Your task to perform on an android device: Clear the cart on amazon.com. Search for beats solo 3 on amazon.com, select the first entry, add it to the cart, then select checkout. Image 0: 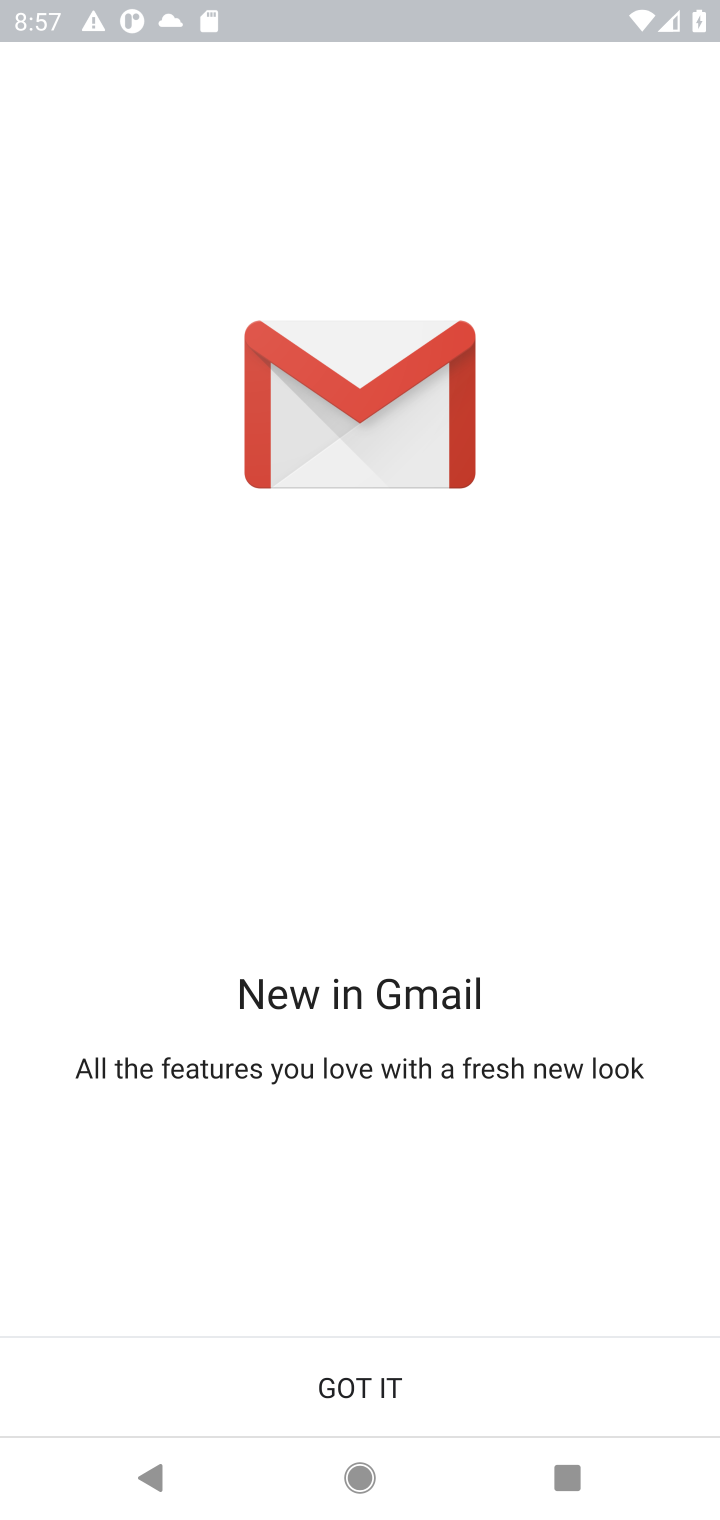
Step 0: press home button
Your task to perform on an android device: Clear the cart on amazon.com. Search for beats solo 3 on amazon.com, select the first entry, add it to the cart, then select checkout. Image 1: 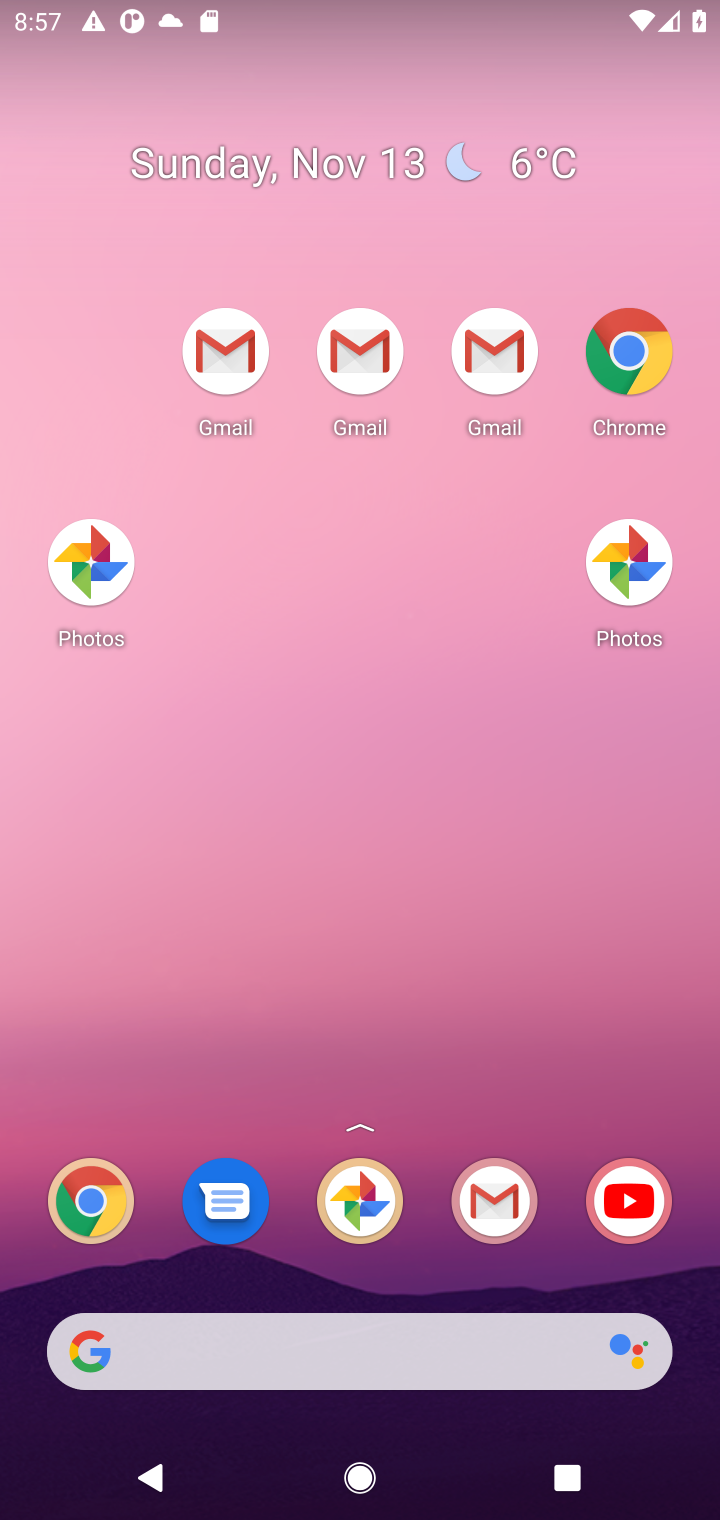
Step 1: drag from (444, 942) to (472, 325)
Your task to perform on an android device: Clear the cart on amazon.com. Search for beats solo 3 on amazon.com, select the first entry, add it to the cart, then select checkout. Image 2: 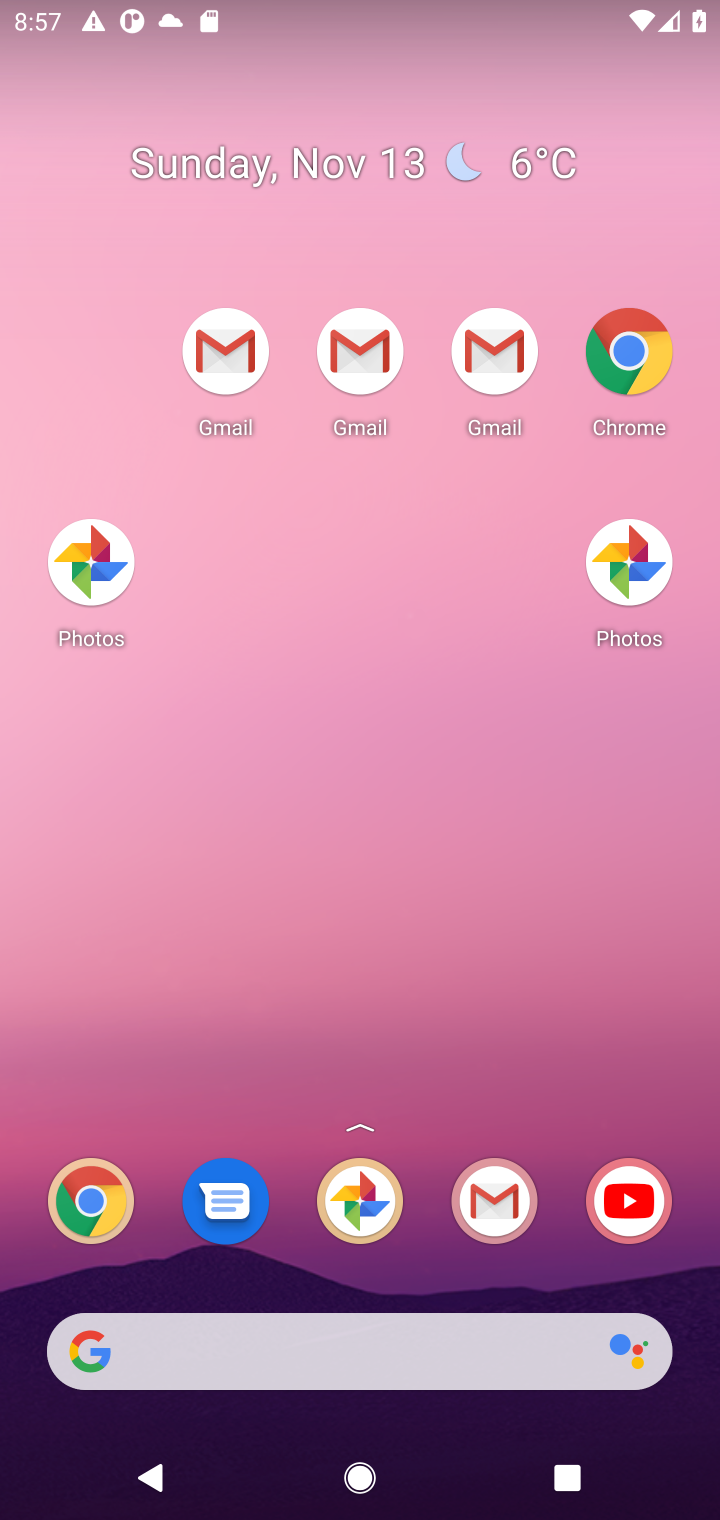
Step 2: drag from (432, 800) to (423, 203)
Your task to perform on an android device: Clear the cart on amazon.com. Search for beats solo 3 on amazon.com, select the first entry, add it to the cart, then select checkout. Image 3: 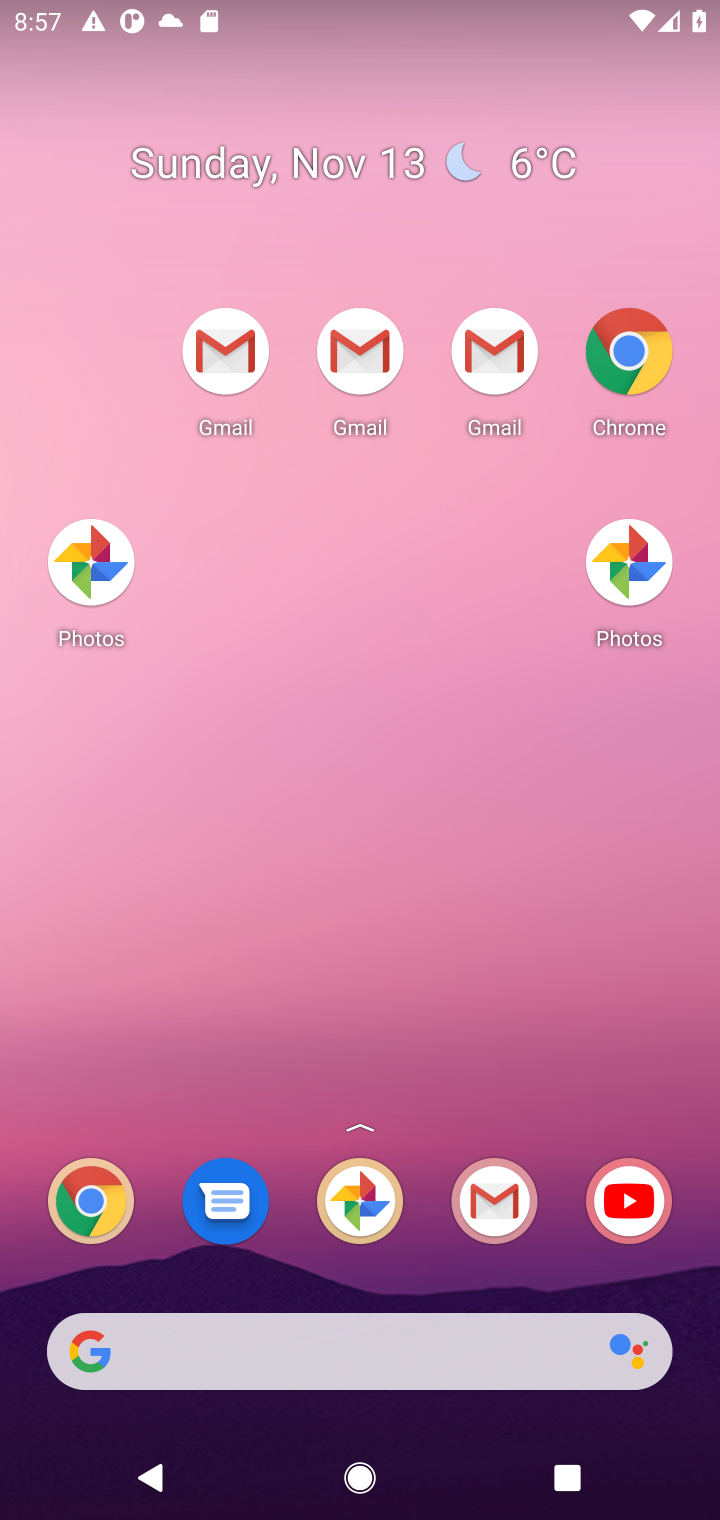
Step 3: drag from (439, 1297) to (372, 36)
Your task to perform on an android device: Clear the cart on amazon.com. Search for beats solo 3 on amazon.com, select the first entry, add it to the cart, then select checkout. Image 4: 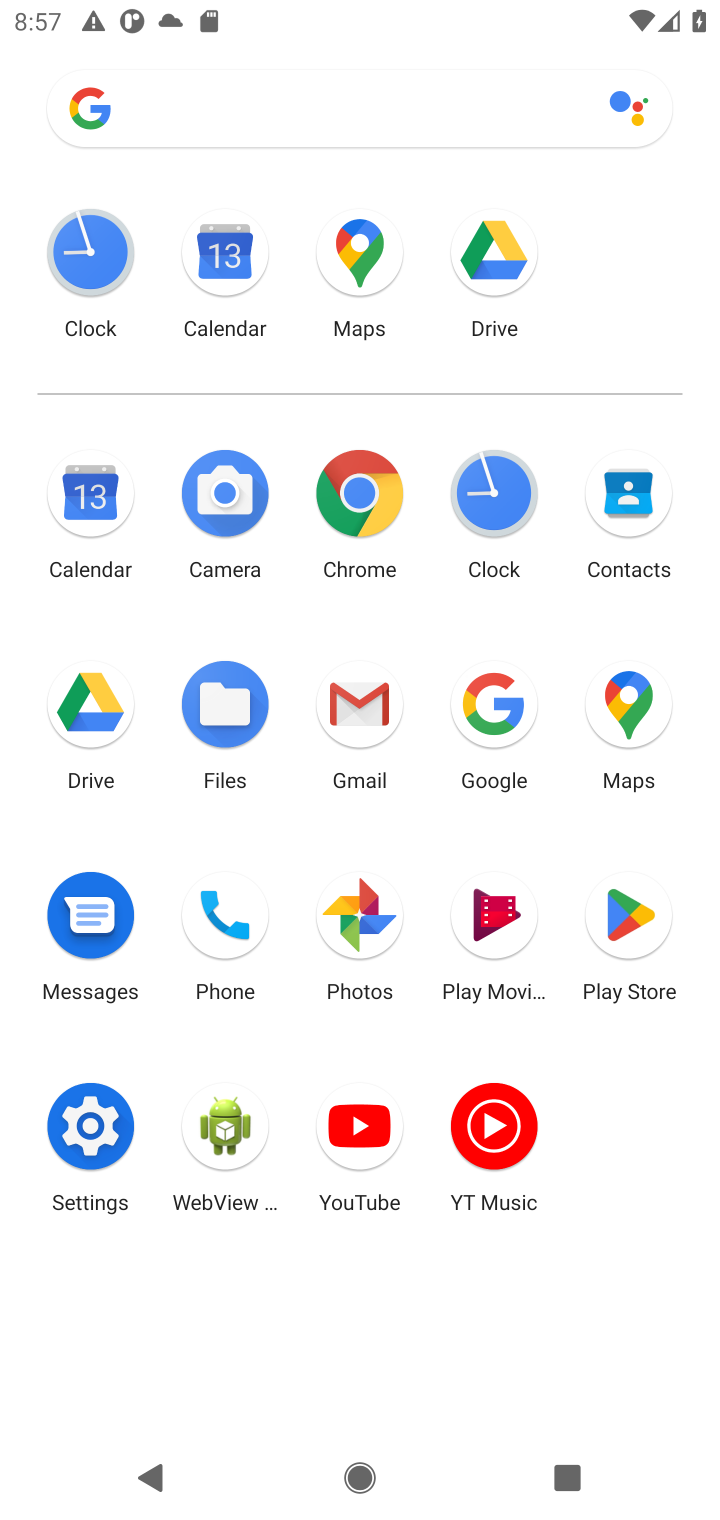
Step 4: click (369, 494)
Your task to perform on an android device: Clear the cart on amazon.com. Search for beats solo 3 on amazon.com, select the first entry, add it to the cart, then select checkout. Image 5: 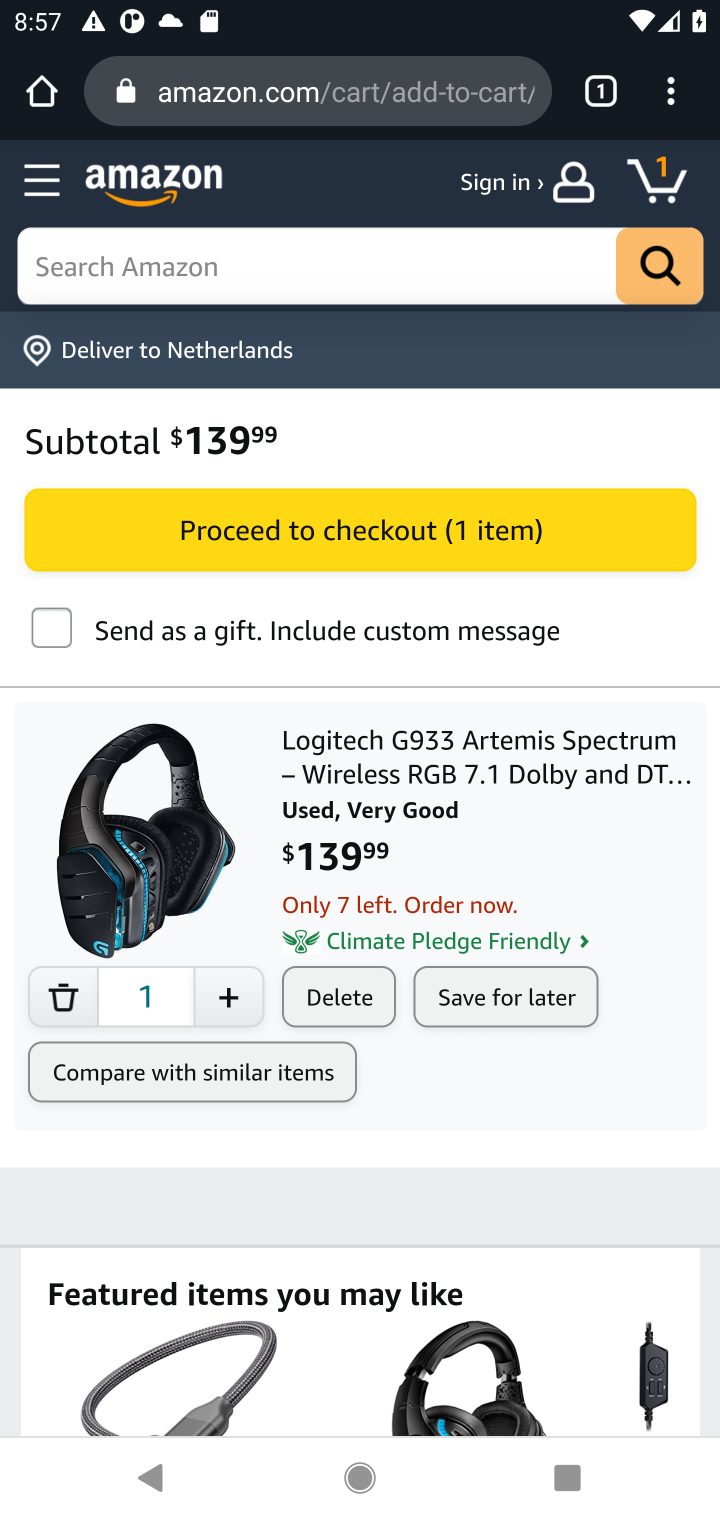
Step 5: click (391, 86)
Your task to perform on an android device: Clear the cart on amazon.com. Search for beats solo 3 on amazon.com, select the first entry, add it to the cart, then select checkout. Image 6: 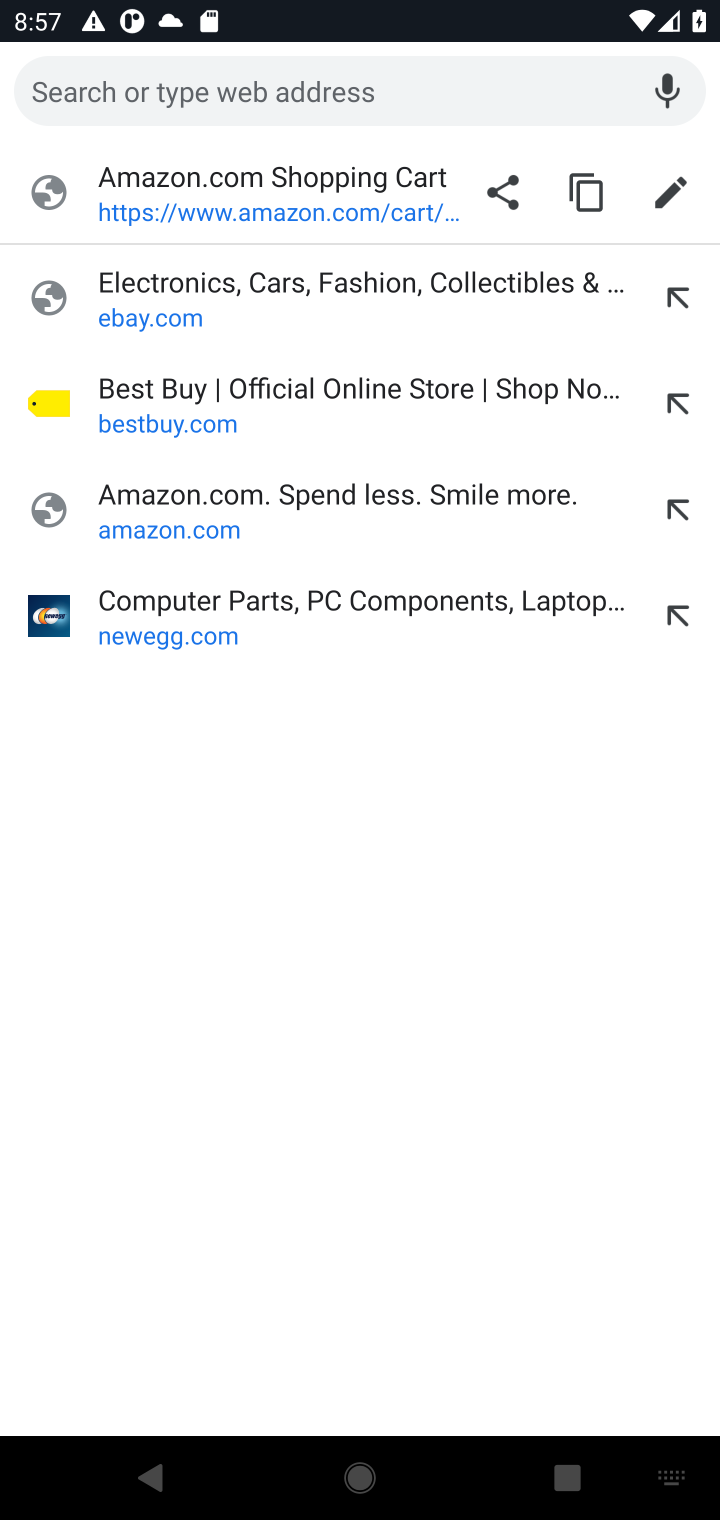
Step 6: type "amazon.com"
Your task to perform on an android device: Clear the cart on amazon.com. Search for beats solo 3 on amazon.com, select the first entry, add it to the cart, then select checkout. Image 7: 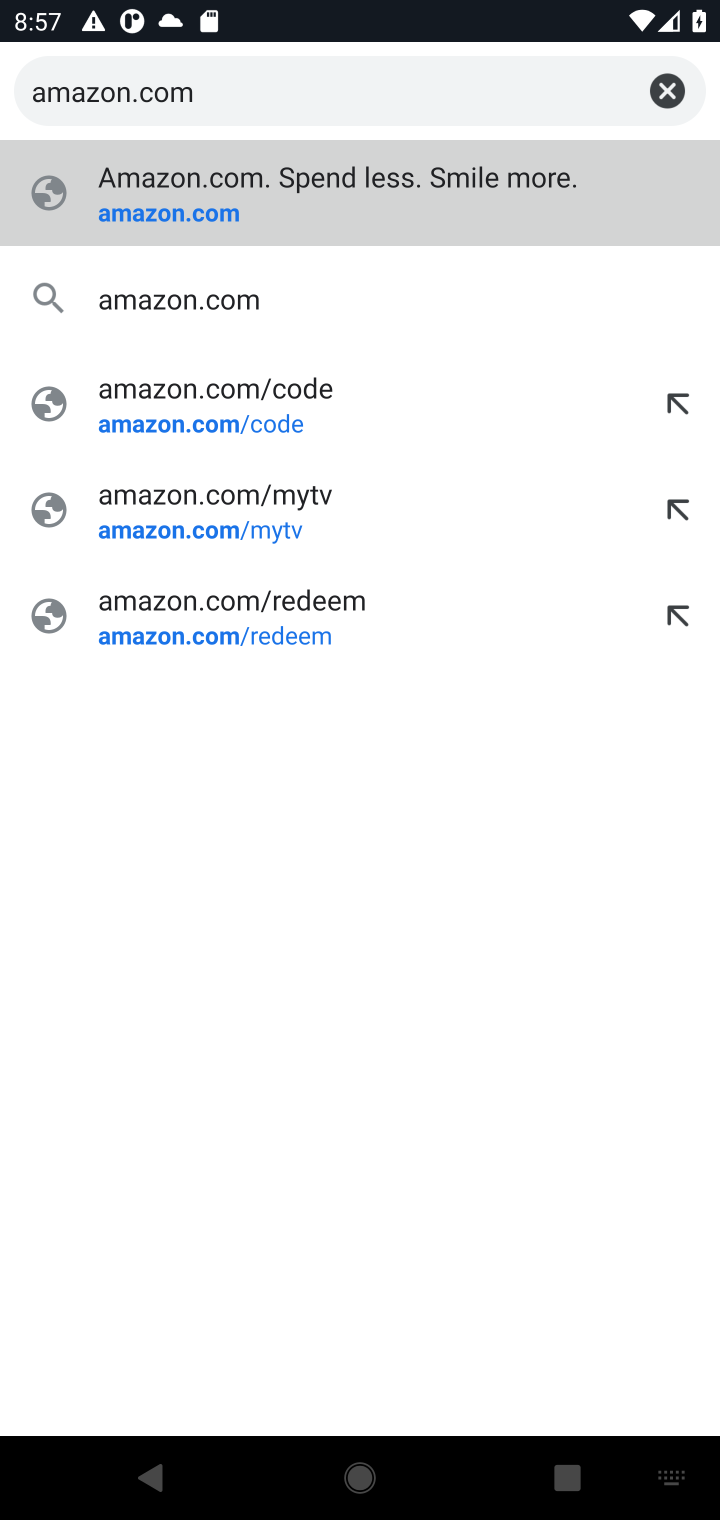
Step 7: press enter
Your task to perform on an android device: Clear the cart on amazon.com. Search for beats solo 3 on amazon.com, select the first entry, add it to the cart, then select checkout. Image 8: 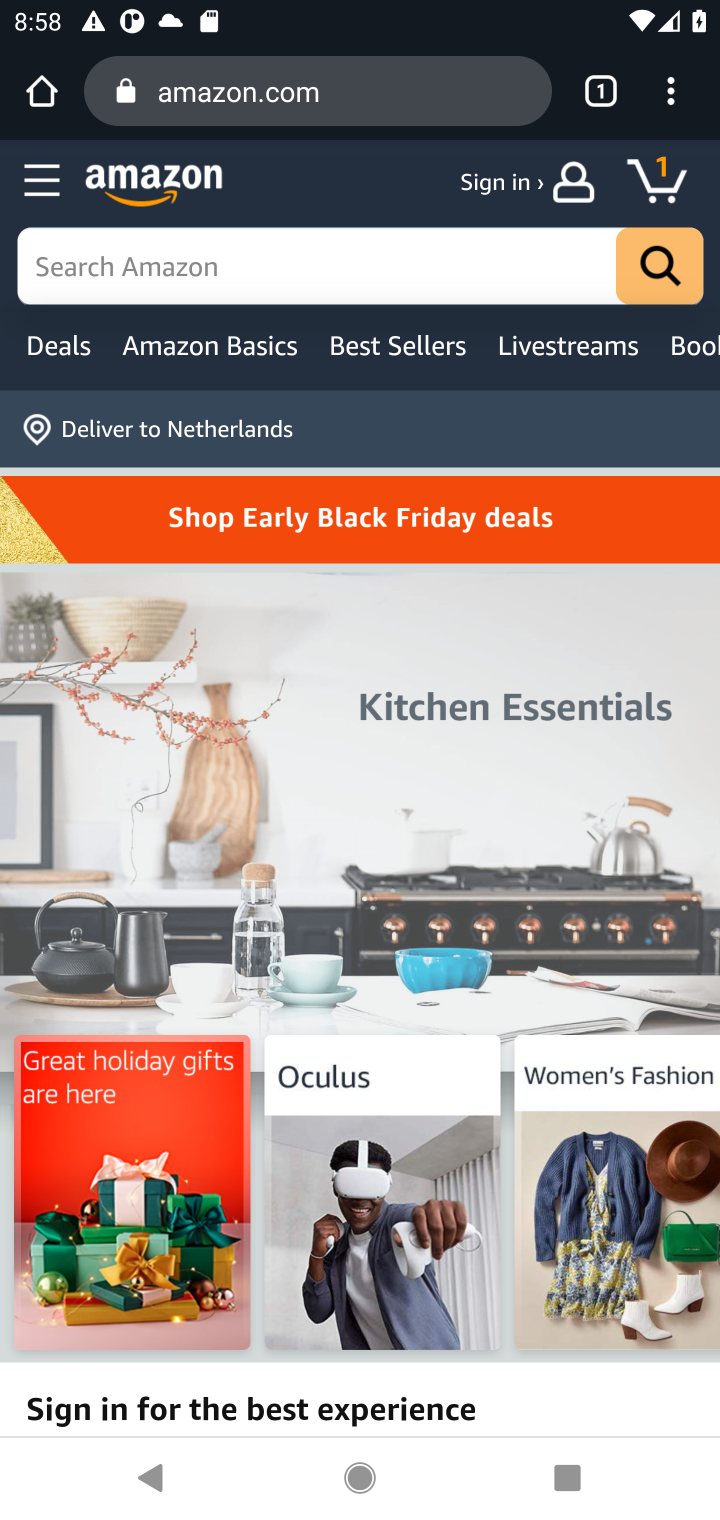
Step 8: click (665, 163)
Your task to perform on an android device: Clear the cart on amazon.com. Search for beats solo 3 on amazon.com, select the first entry, add it to the cart, then select checkout. Image 9: 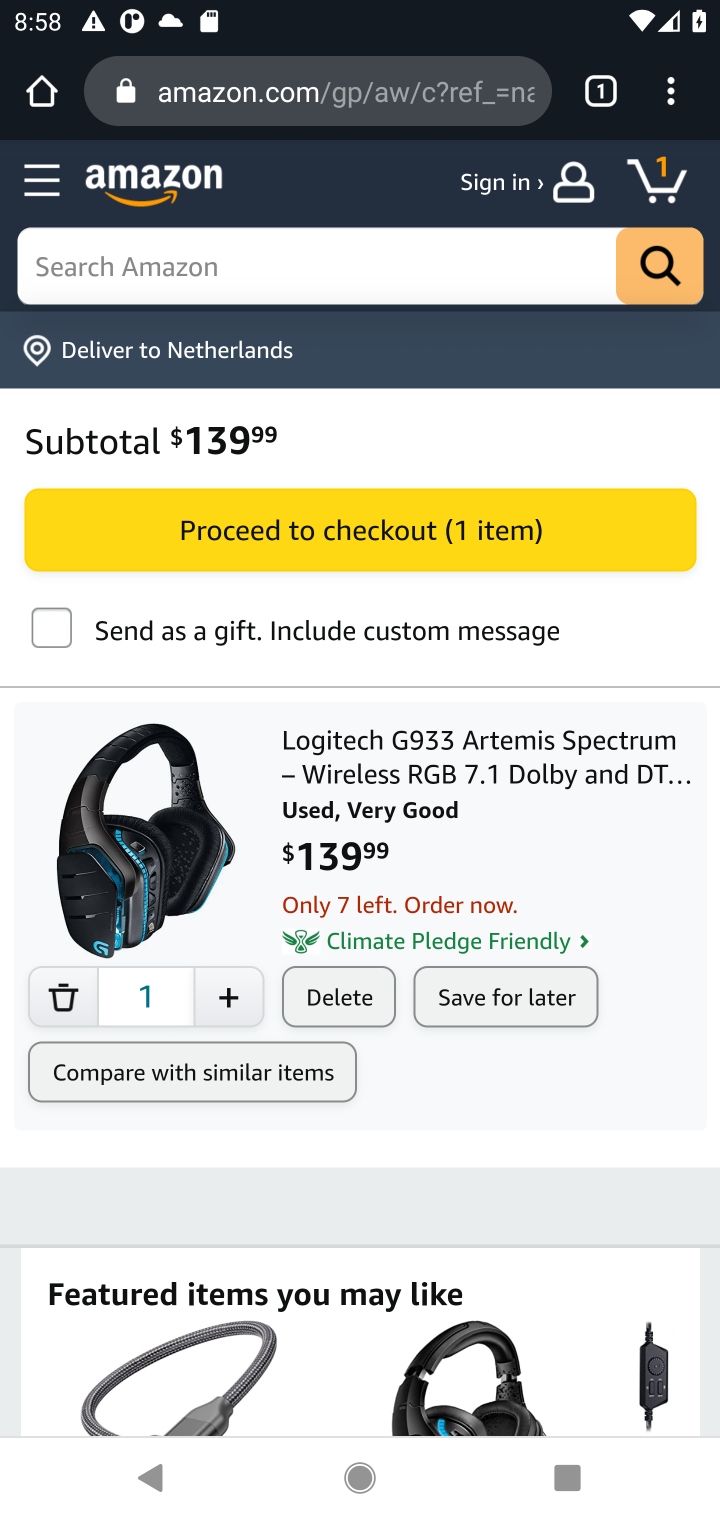
Step 9: click (345, 989)
Your task to perform on an android device: Clear the cart on amazon.com. Search for beats solo 3 on amazon.com, select the first entry, add it to the cart, then select checkout. Image 10: 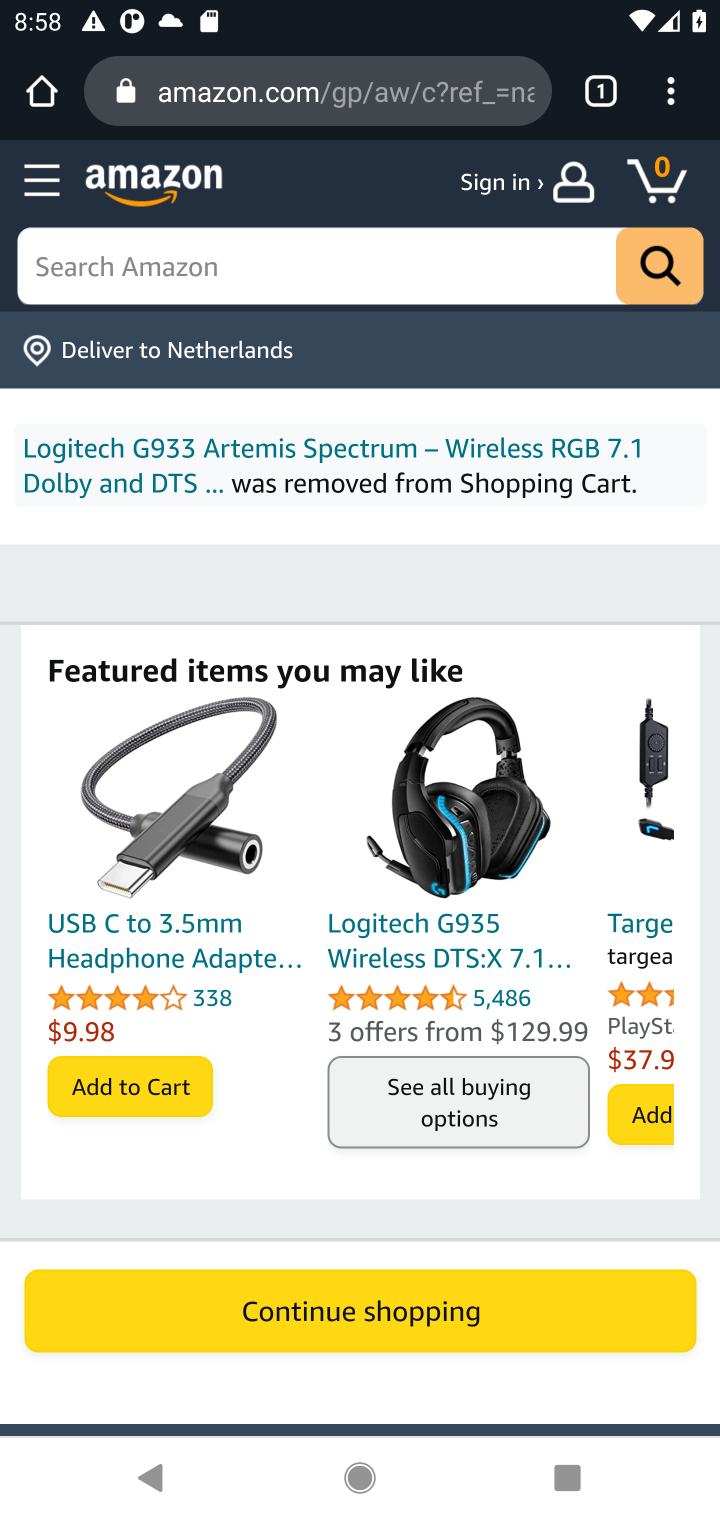
Step 10: click (469, 277)
Your task to perform on an android device: Clear the cart on amazon.com. Search for beats solo 3 on amazon.com, select the first entry, add it to the cart, then select checkout. Image 11: 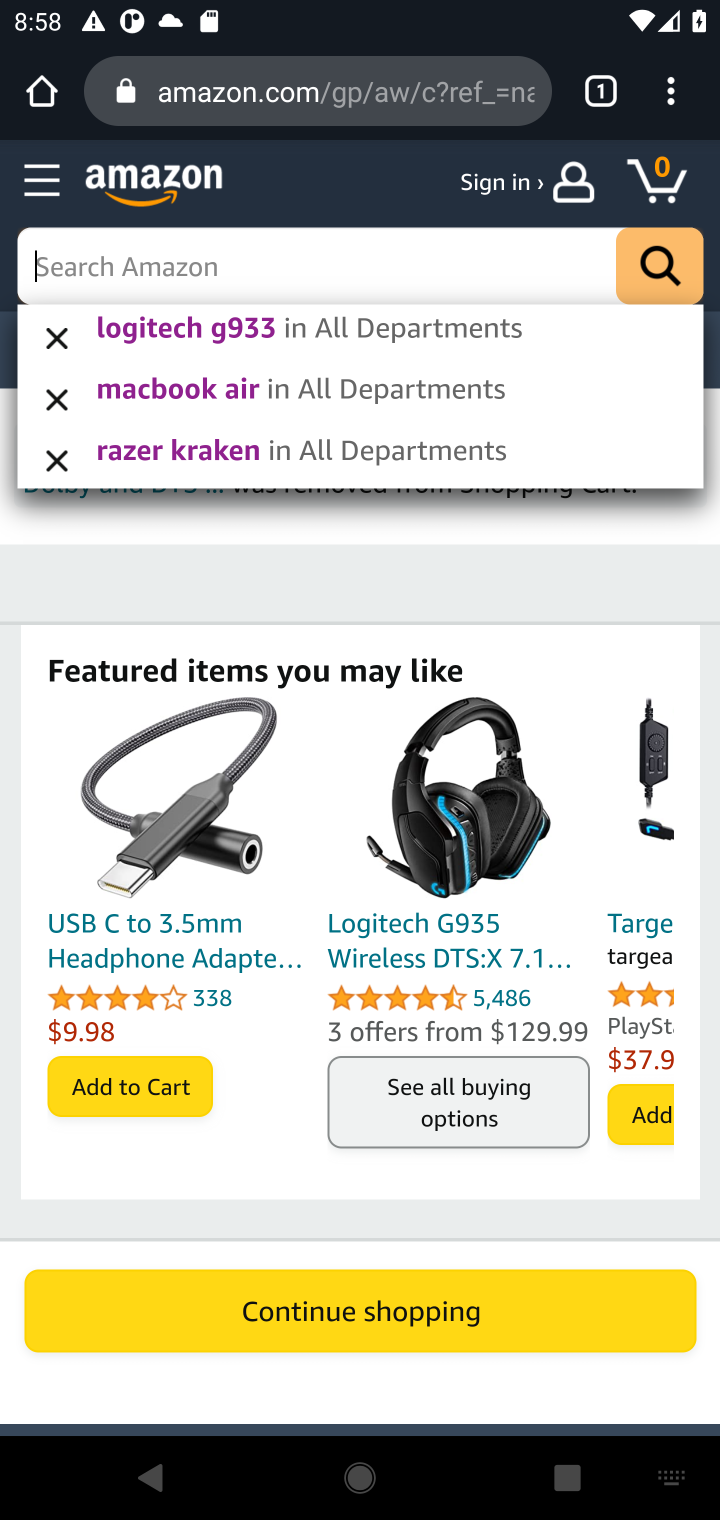
Step 11: type "beats solo 3"
Your task to perform on an android device: Clear the cart on amazon.com. Search for beats solo 3 on amazon.com, select the first entry, add it to the cart, then select checkout. Image 12: 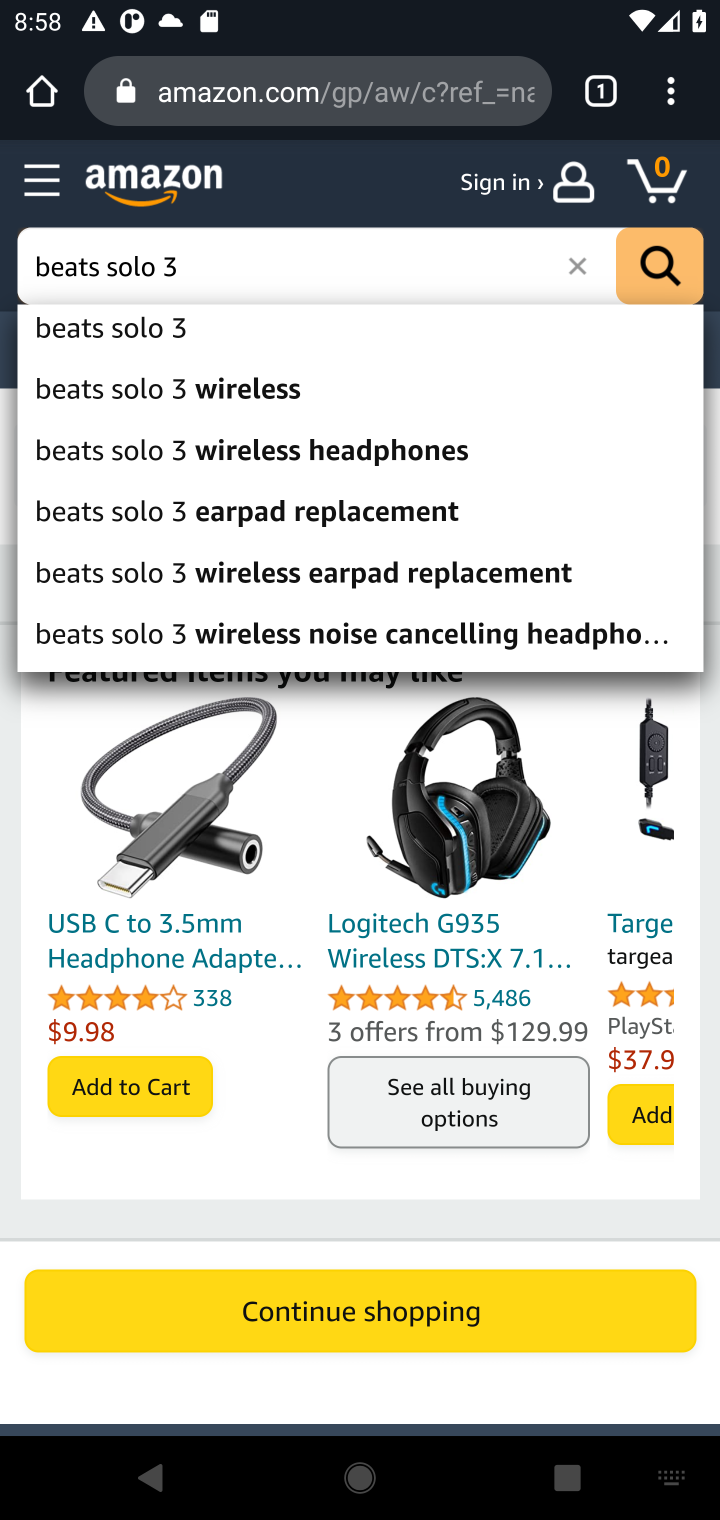
Step 12: press enter
Your task to perform on an android device: Clear the cart on amazon.com. Search for beats solo 3 on amazon.com, select the first entry, add it to the cart, then select checkout. Image 13: 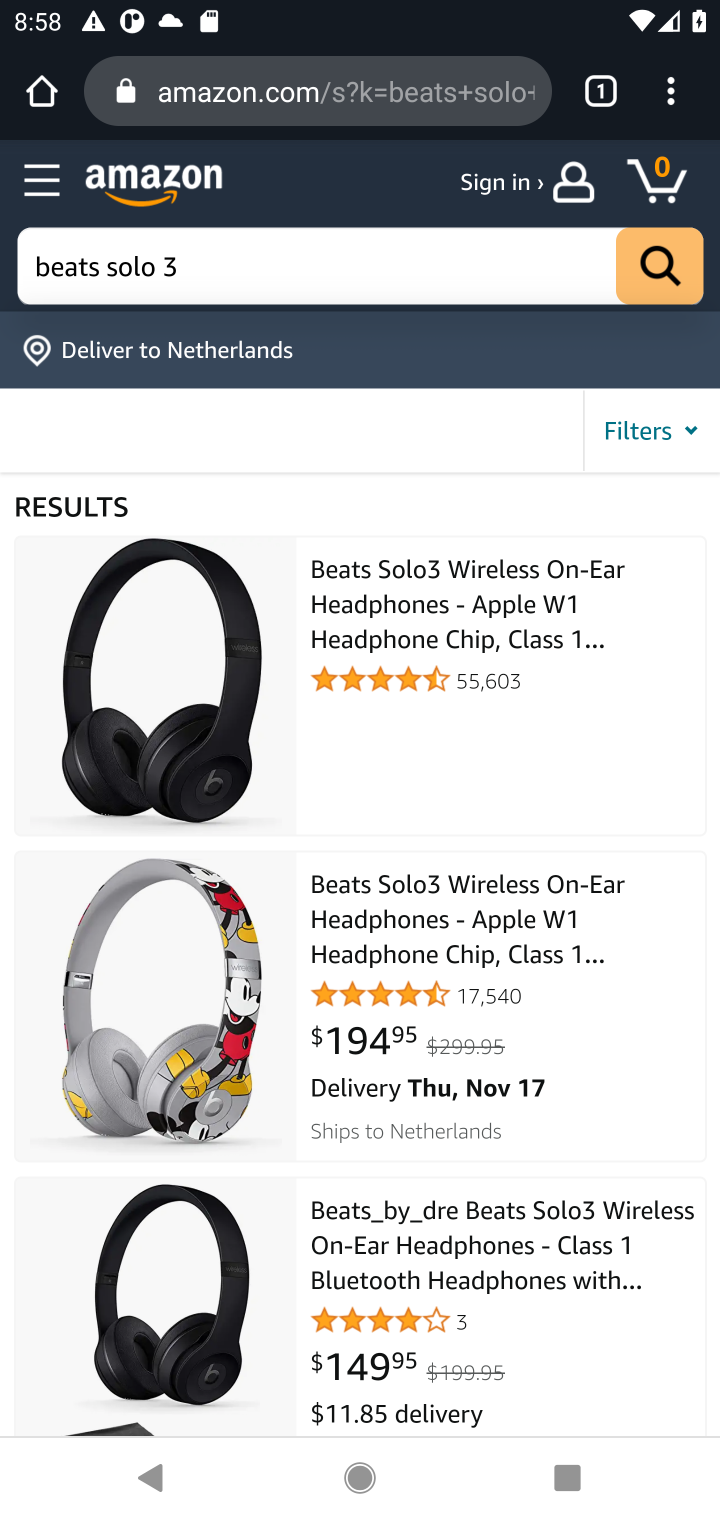
Step 13: click (471, 627)
Your task to perform on an android device: Clear the cart on amazon.com. Search for beats solo 3 on amazon.com, select the first entry, add it to the cart, then select checkout. Image 14: 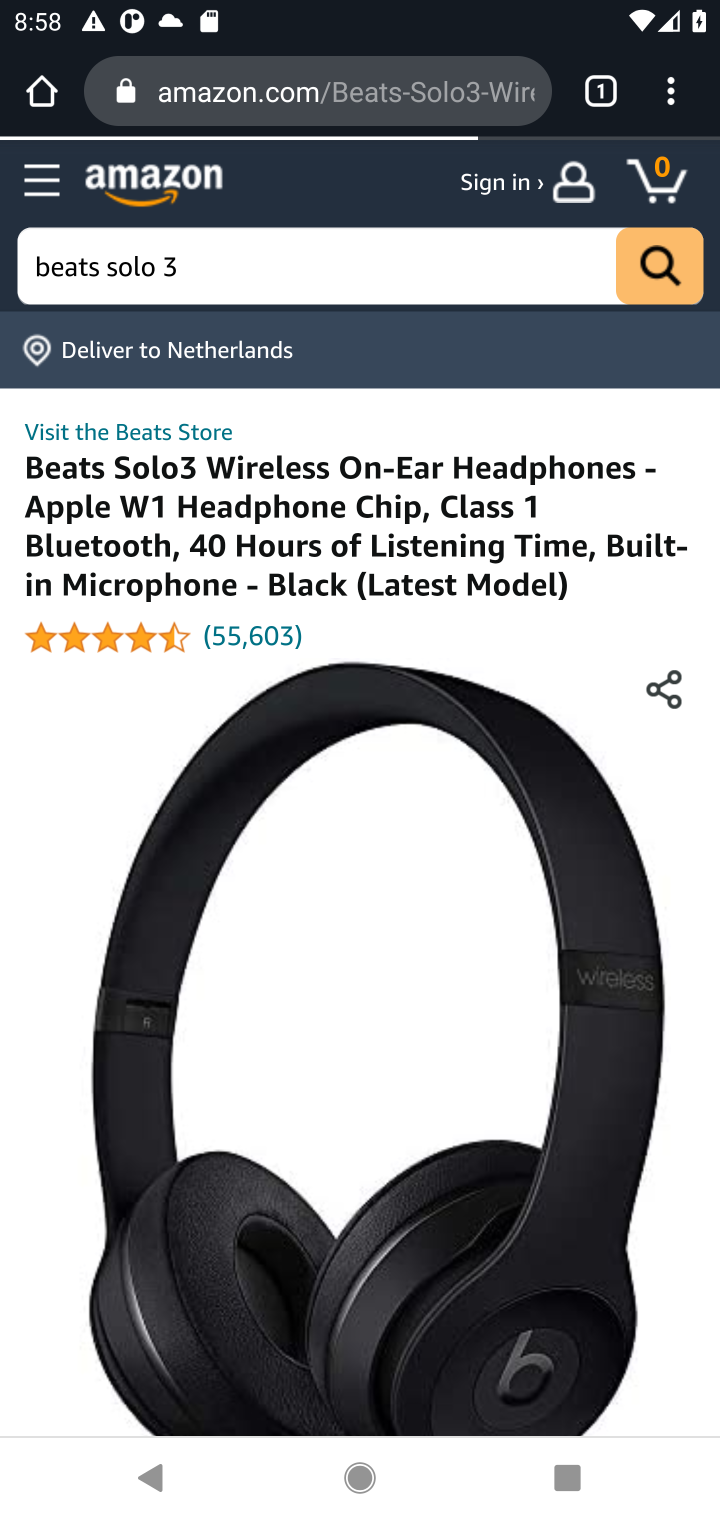
Step 14: task complete